Your task to perform on an android device: Is it going to rain this weekend? Image 0: 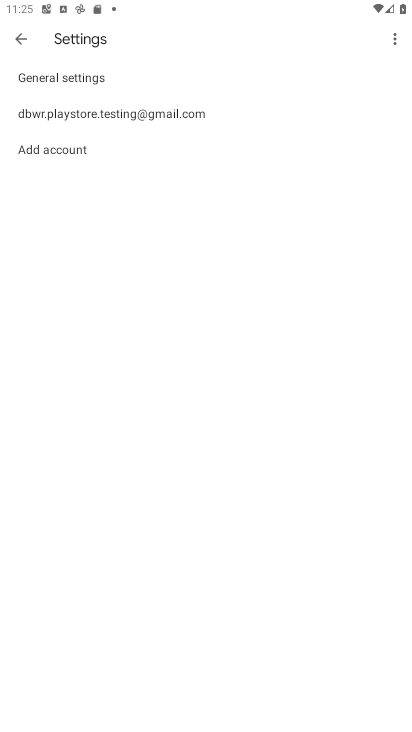
Step 0: press home button
Your task to perform on an android device: Is it going to rain this weekend? Image 1: 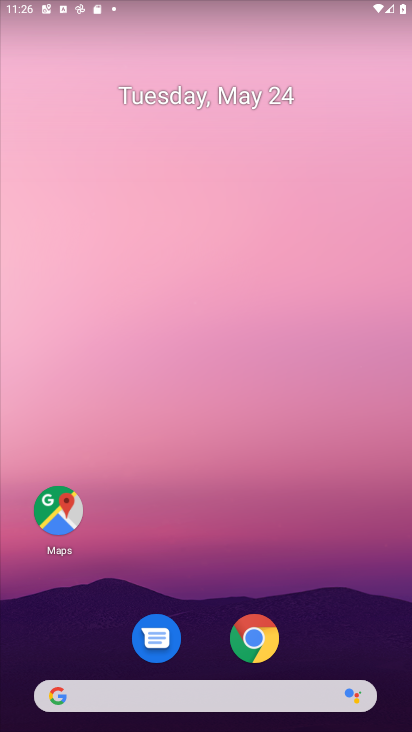
Step 1: click (232, 699)
Your task to perform on an android device: Is it going to rain this weekend? Image 2: 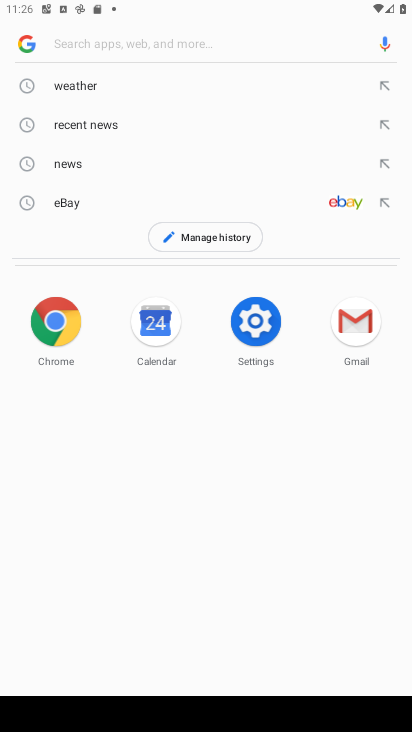
Step 2: type "Is it going to rain this weekend?"
Your task to perform on an android device: Is it going to rain this weekend? Image 3: 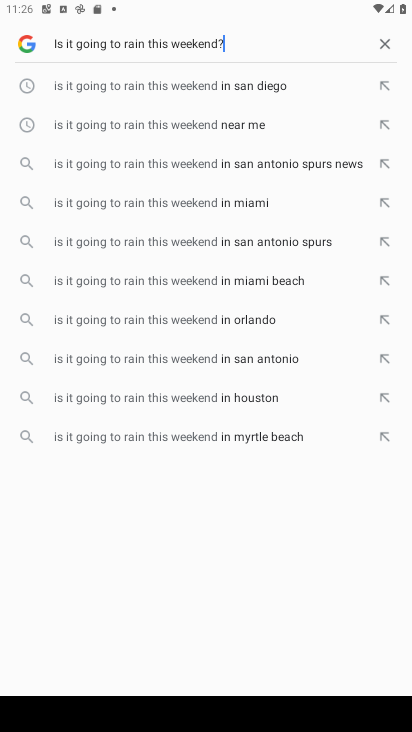
Step 3: click (284, 125)
Your task to perform on an android device: Is it going to rain this weekend? Image 4: 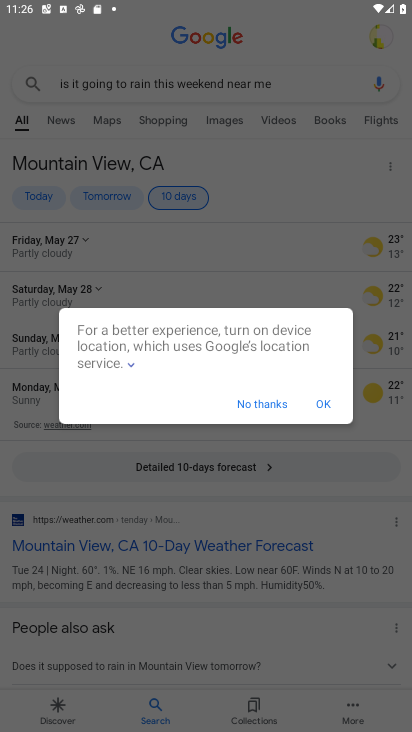
Step 4: task complete